Your task to perform on an android device: Open Maps and search for coffee Image 0: 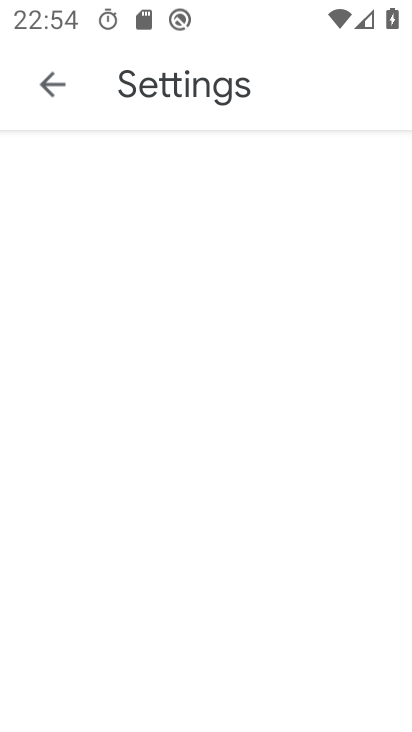
Step 0: drag from (343, 451) to (377, 200)
Your task to perform on an android device: Open Maps and search for coffee Image 1: 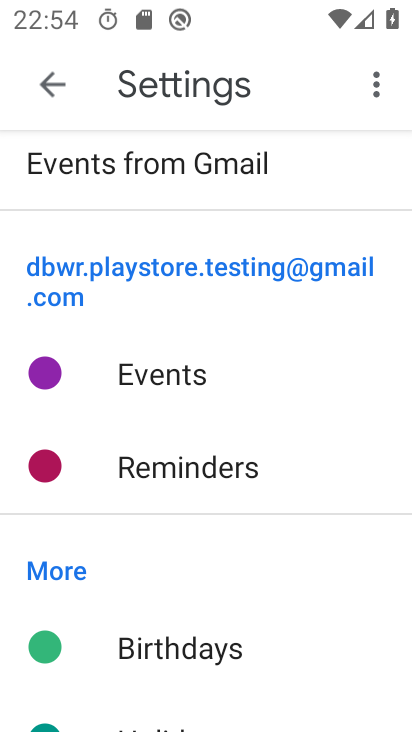
Step 1: press home button
Your task to perform on an android device: Open Maps and search for coffee Image 2: 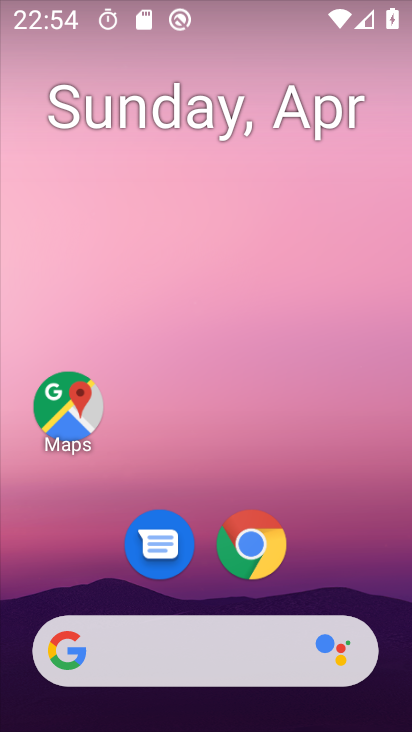
Step 2: drag from (328, 573) to (370, 218)
Your task to perform on an android device: Open Maps and search for coffee Image 3: 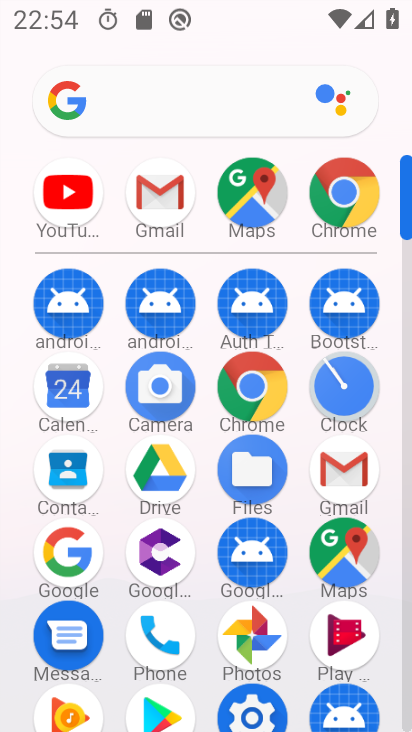
Step 3: click (341, 551)
Your task to perform on an android device: Open Maps and search for coffee Image 4: 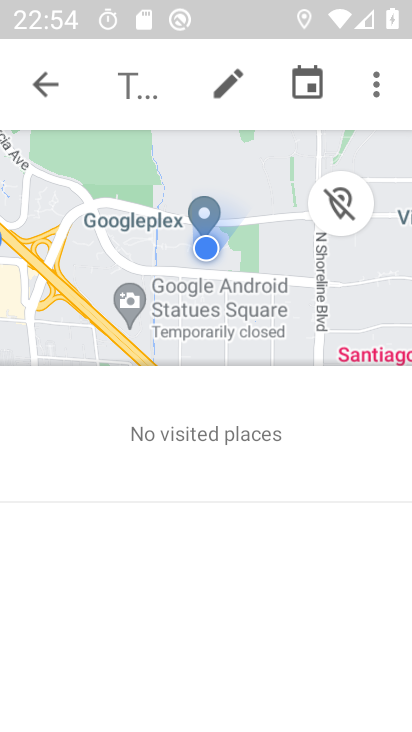
Step 4: click (31, 76)
Your task to perform on an android device: Open Maps and search for coffee Image 5: 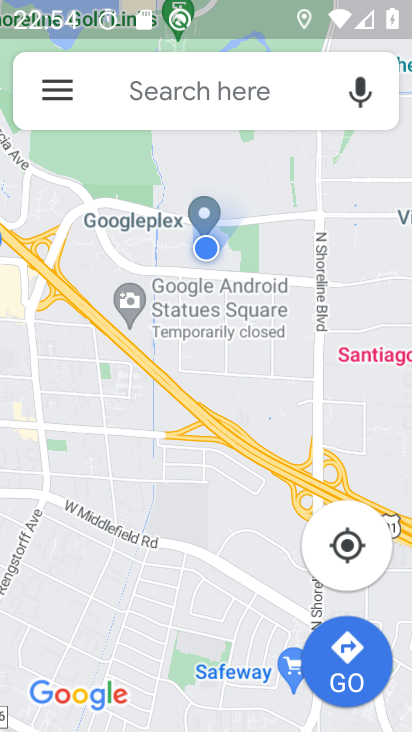
Step 5: click (214, 95)
Your task to perform on an android device: Open Maps and search for coffee Image 6: 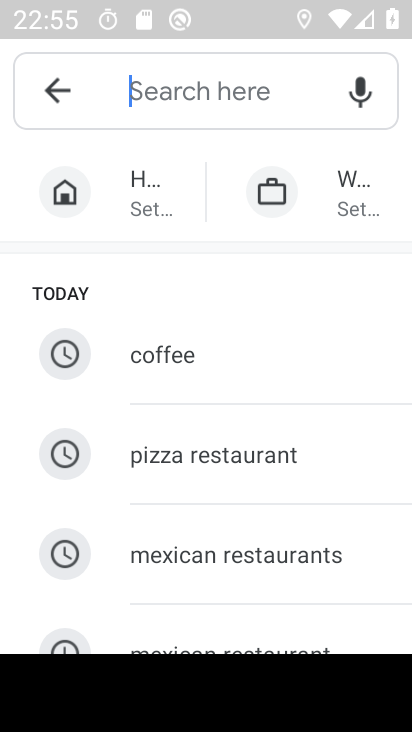
Step 6: click (188, 347)
Your task to perform on an android device: Open Maps and search for coffee Image 7: 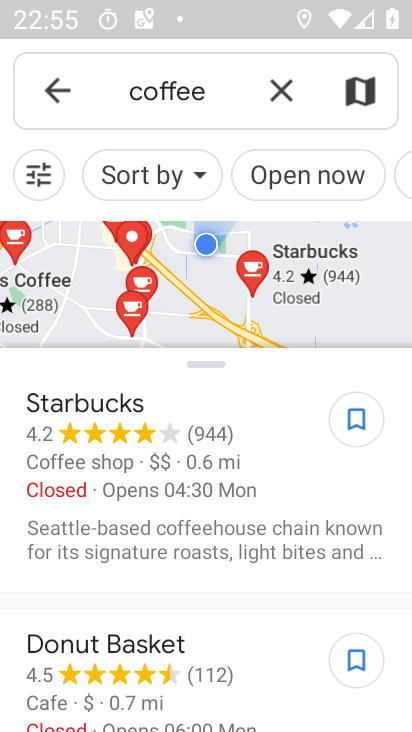
Step 7: task complete